Your task to perform on an android device: What's the weather? Image 0: 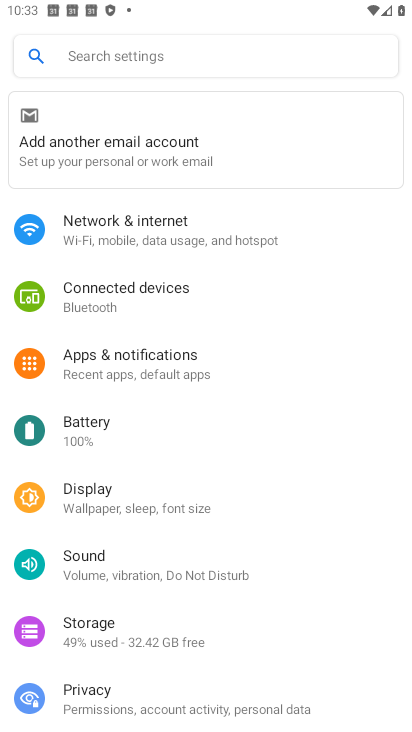
Step 0: press home button
Your task to perform on an android device: What's the weather? Image 1: 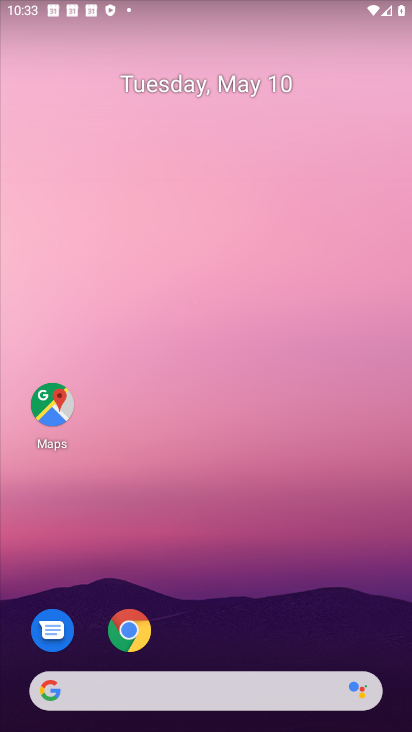
Step 1: click (279, 702)
Your task to perform on an android device: What's the weather? Image 2: 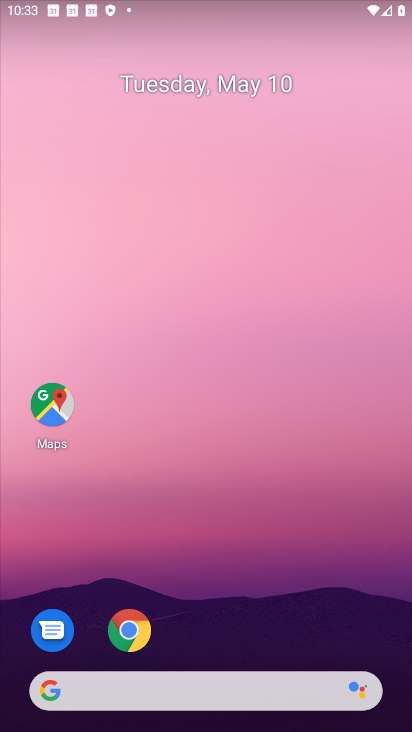
Step 2: click (145, 695)
Your task to perform on an android device: What's the weather? Image 3: 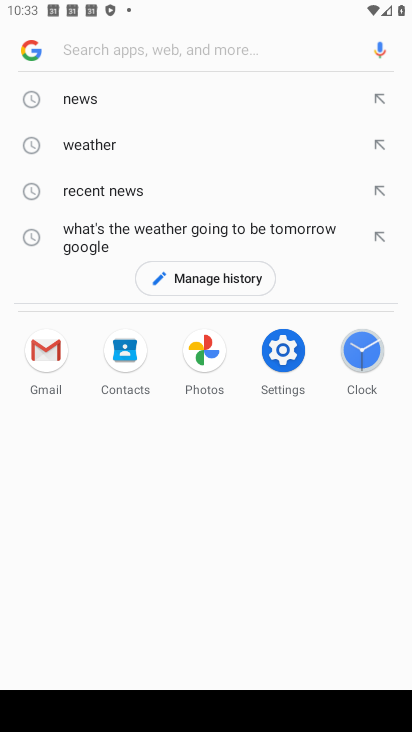
Step 3: click (209, 127)
Your task to perform on an android device: What's the weather? Image 4: 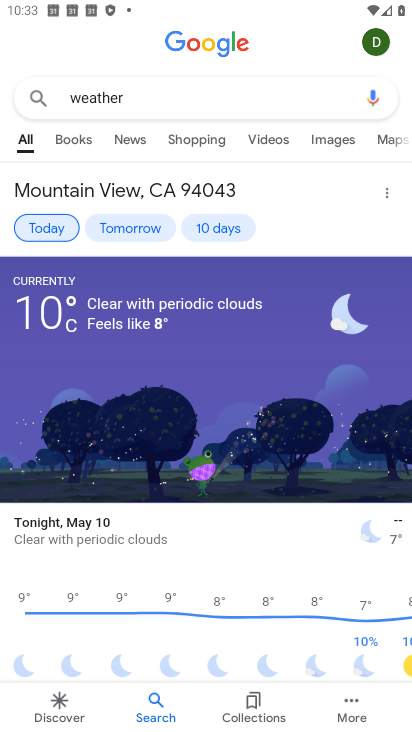
Step 4: task complete